Your task to perform on an android device: turn on sleep mode Image 0: 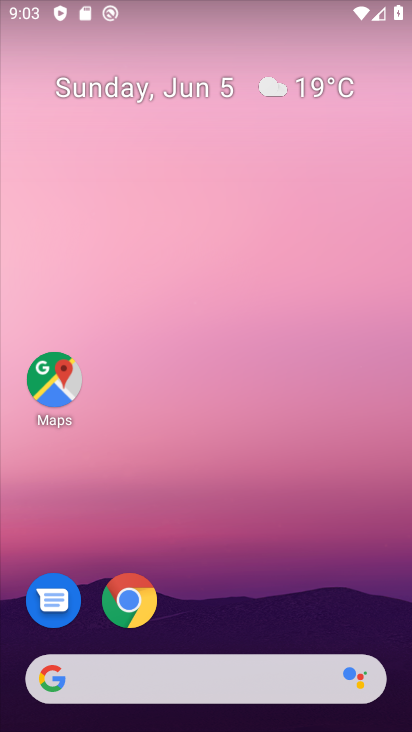
Step 0: task complete